Your task to perform on an android device: star an email in the gmail app Image 0: 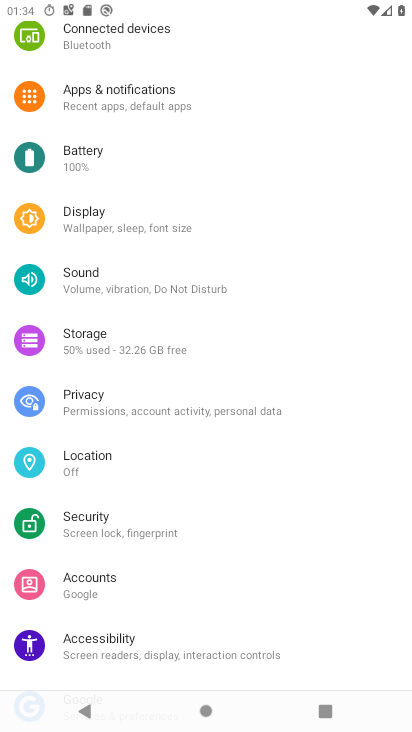
Step 0: press home button
Your task to perform on an android device: star an email in the gmail app Image 1: 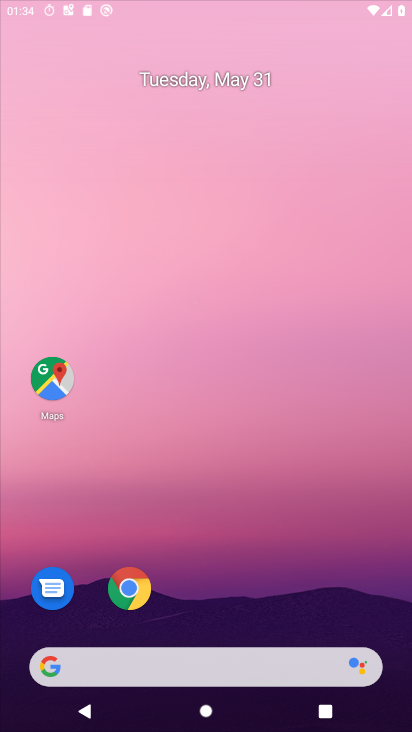
Step 1: drag from (299, 696) to (357, 85)
Your task to perform on an android device: star an email in the gmail app Image 2: 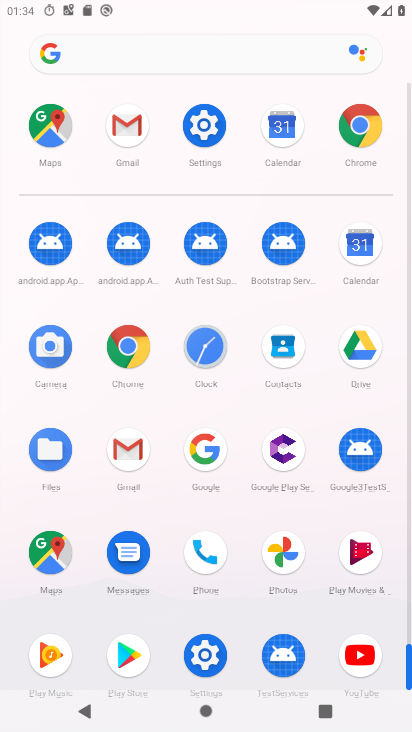
Step 2: click (123, 460)
Your task to perform on an android device: star an email in the gmail app Image 3: 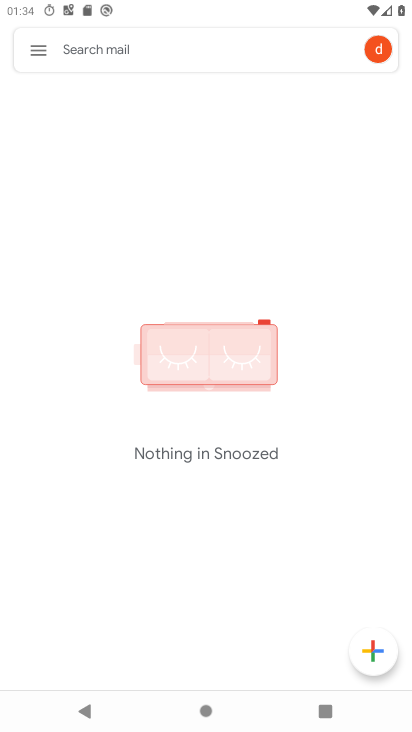
Step 3: click (33, 51)
Your task to perform on an android device: star an email in the gmail app Image 4: 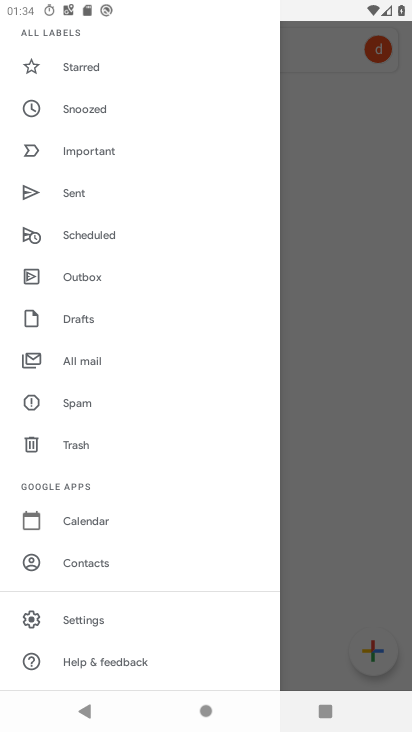
Step 4: click (89, 67)
Your task to perform on an android device: star an email in the gmail app Image 5: 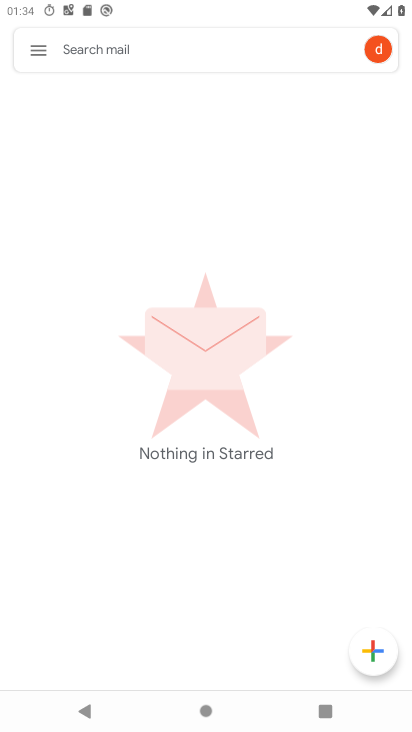
Step 5: task complete